Your task to perform on an android device: toggle improve location accuracy Image 0: 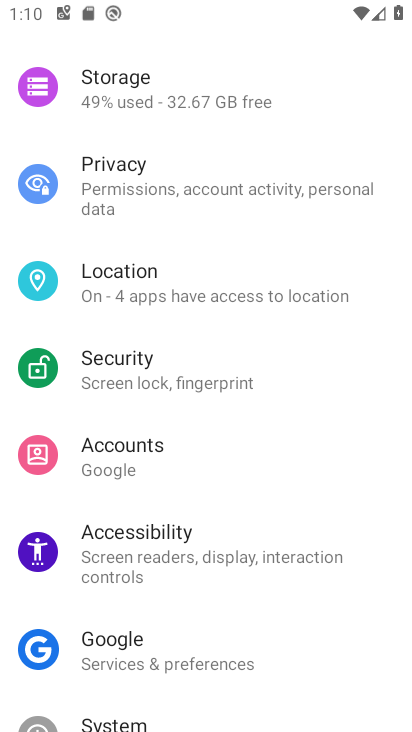
Step 0: drag from (265, 619) to (268, 360)
Your task to perform on an android device: toggle improve location accuracy Image 1: 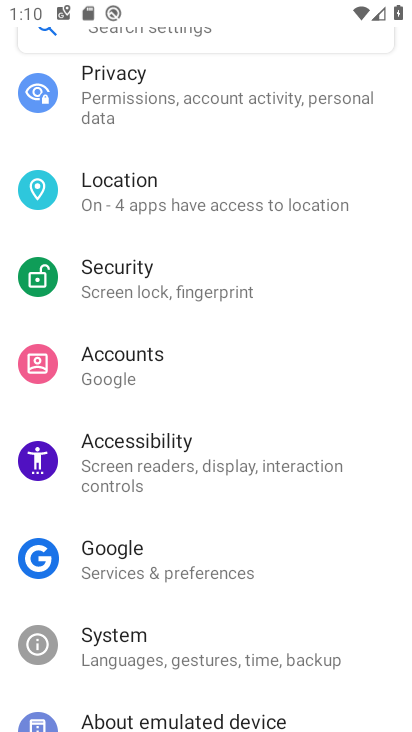
Step 1: click (167, 183)
Your task to perform on an android device: toggle improve location accuracy Image 2: 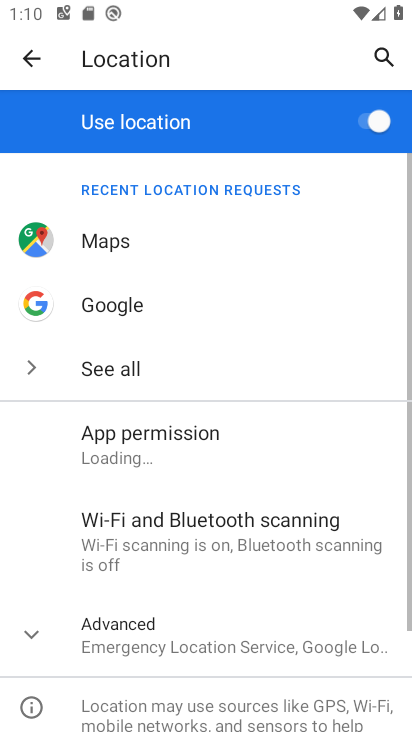
Step 2: click (166, 648)
Your task to perform on an android device: toggle improve location accuracy Image 3: 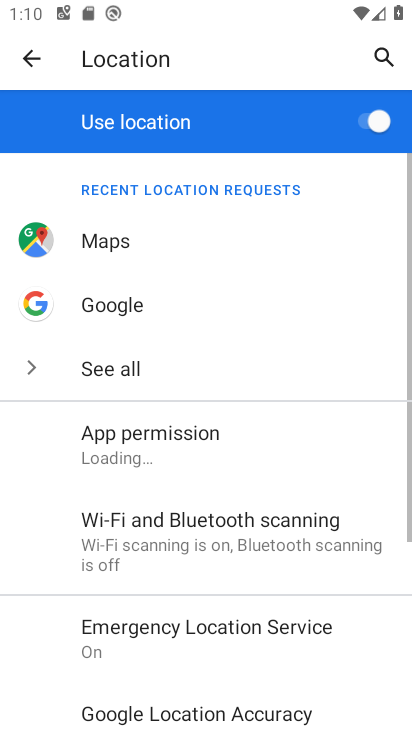
Step 3: drag from (168, 649) to (175, 424)
Your task to perform on an android device: toggle improve location accuracy Image 4: 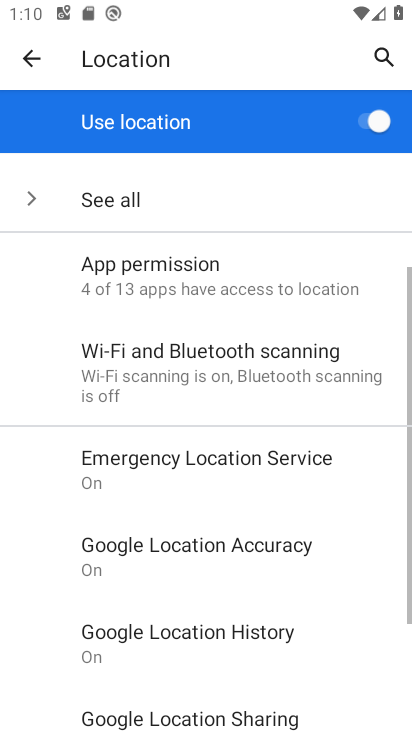
Step 4: click (175, 547)
Your task to perform on an android device: toggle improve location accuracy Image 5: 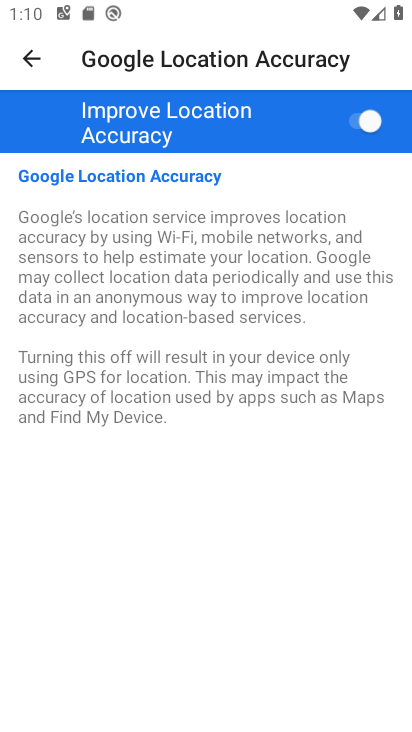
Step 5: click (360, 115)
Your task to perform on an android device: toggle improve location accuracy Image 6: 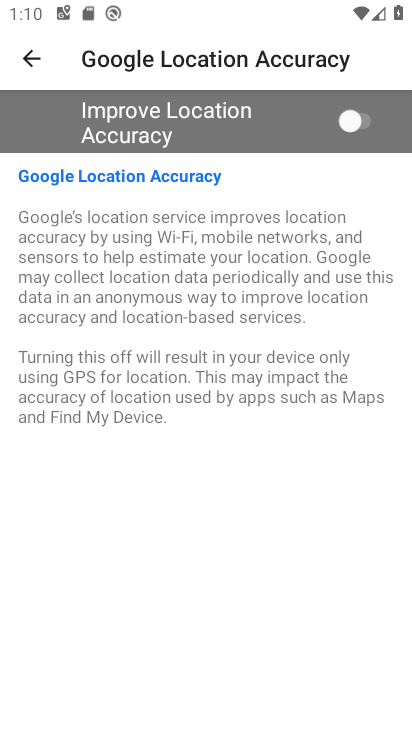
Step 6: task complete